Your task to perform on an android device: Open Google Chrome and click the shortcut for Amazon.com Image 0: 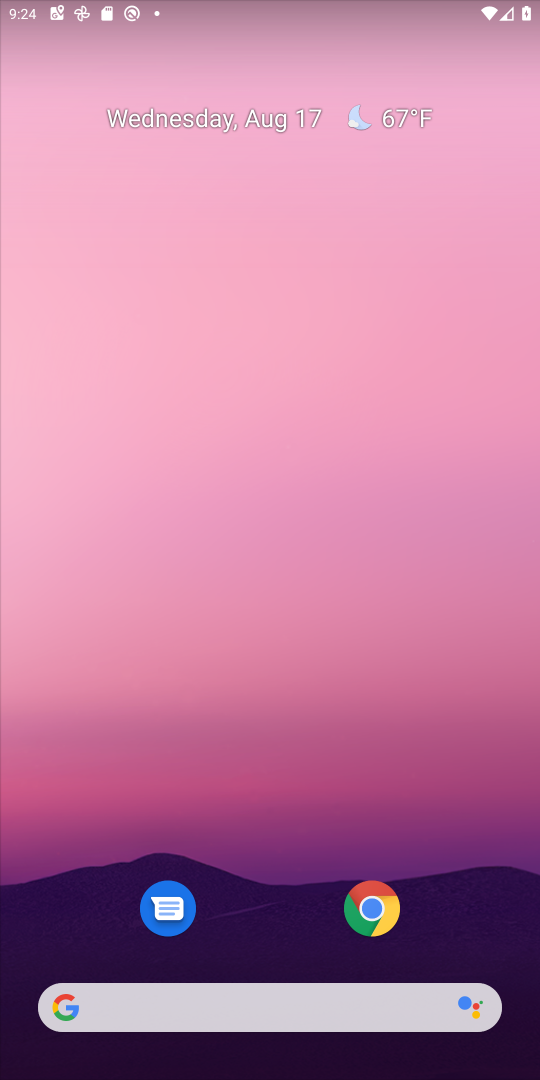
Step 0: drag from (261, 902) to (323, 12)
Your task to perform on an android device: Open Google Chrome and click the shortcut for Amazon.com Image 1: 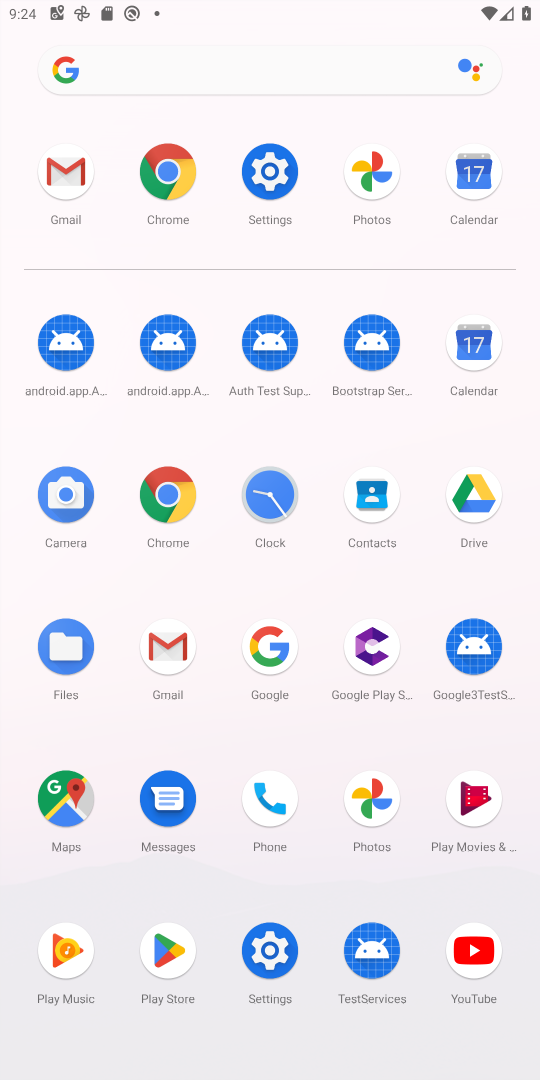
Step 1: drag from (319, 579) to (309, 2)
Your task to perform on an android device: Open Google Chrome and click the shortcut for Amazon.com Image 2: 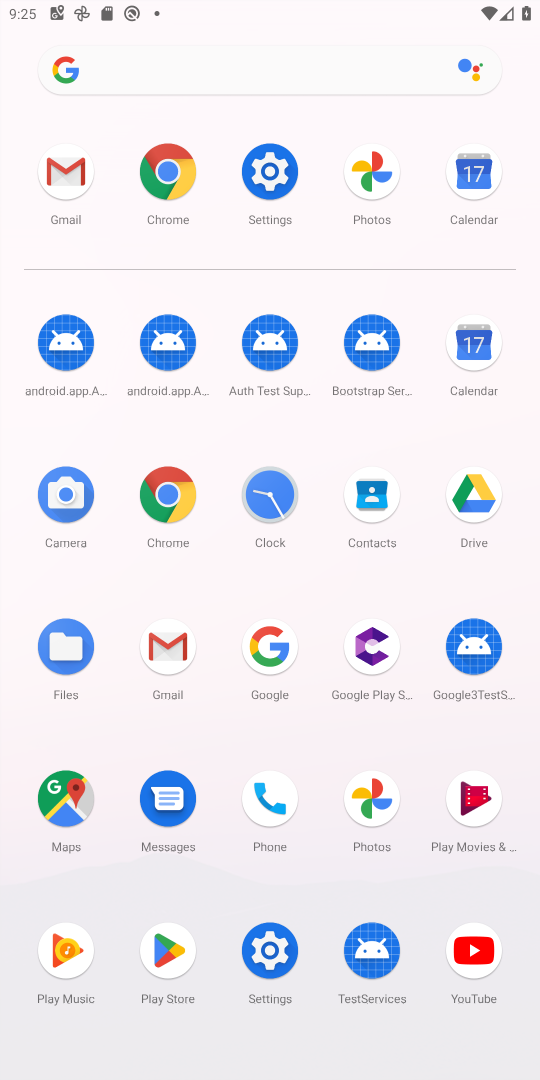
Step 2: click (170, 485)
Your task to perform on an android device: Open Google Chrome and click the shortcut for Amazon.com Image 3: 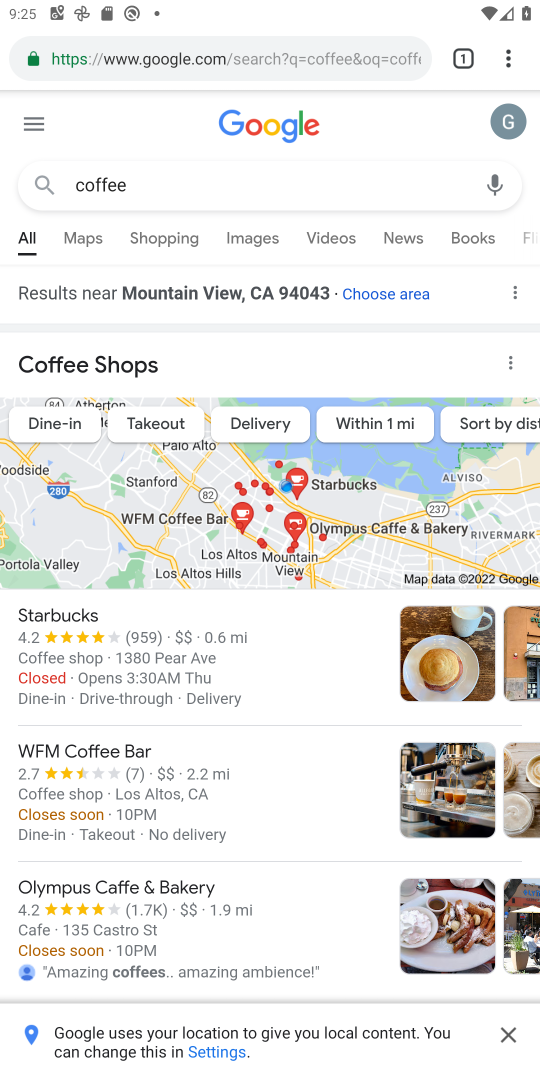
Step 3: drag from (506, 44) to (283, 109)
Your task to perform on an android device: Open Google Chrome and click the shortcut for Amazon.com Image 4: 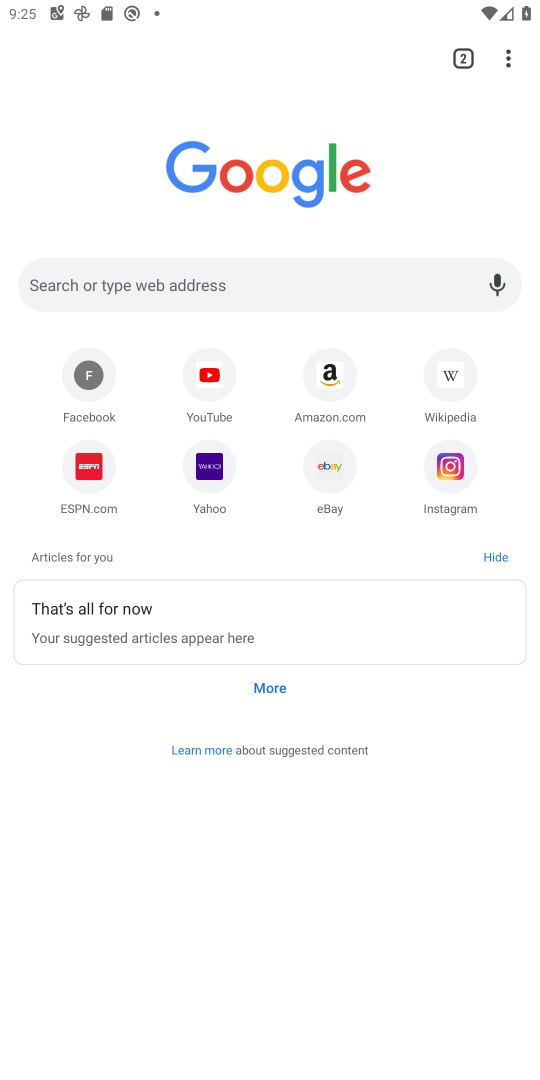
Step 4: click (332, 371)
Your task to perform on an android device: Open Google Chrome and click the shortcut for Amazon.com Image 5: 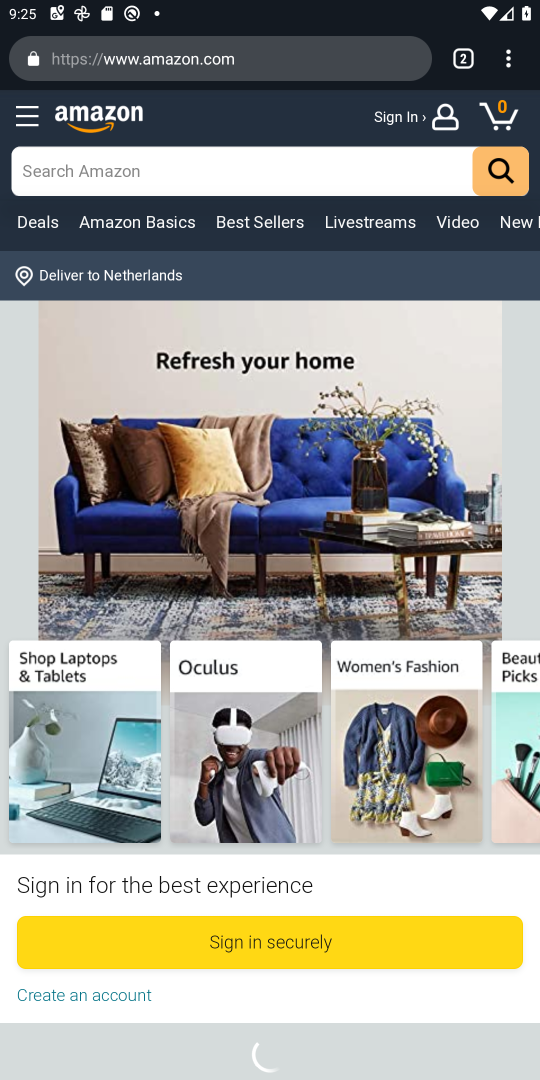
Step 5: task complete